Your task to perform on an android device: turn off sleep mode Image 0: 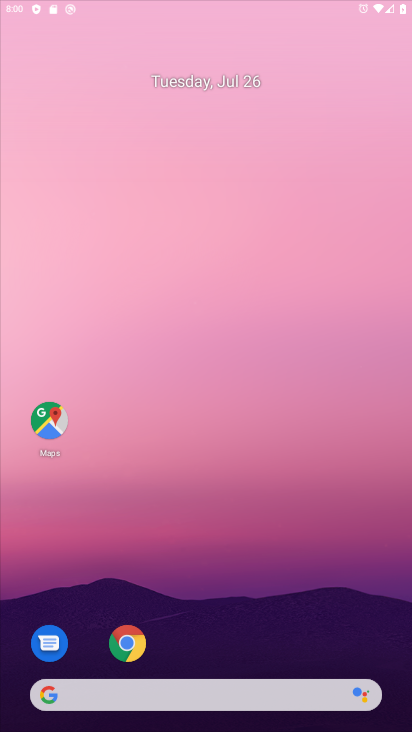
Step 0: drag from (204, 637) to (214, 281)
Your task to perform on an android device: turn off sleep mode Image 1: 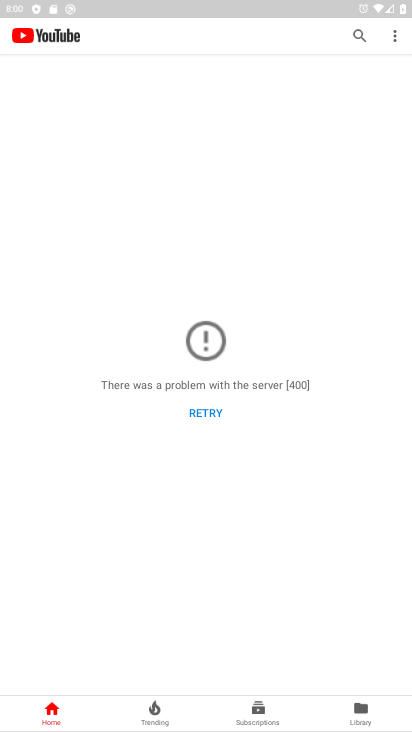
Step 1: press home button
Your task to perform on an android device: turn off sleep mode Image 2: 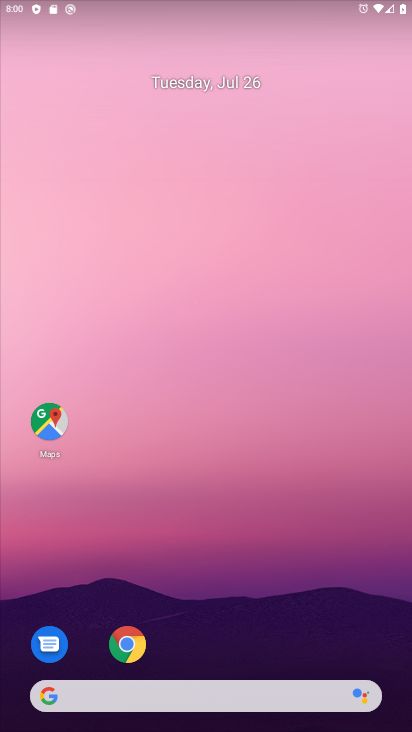
Step 2: drag from (234, 550) to (240, 188)
Your task to perform on an android device: turn off sleep mode Image 3: 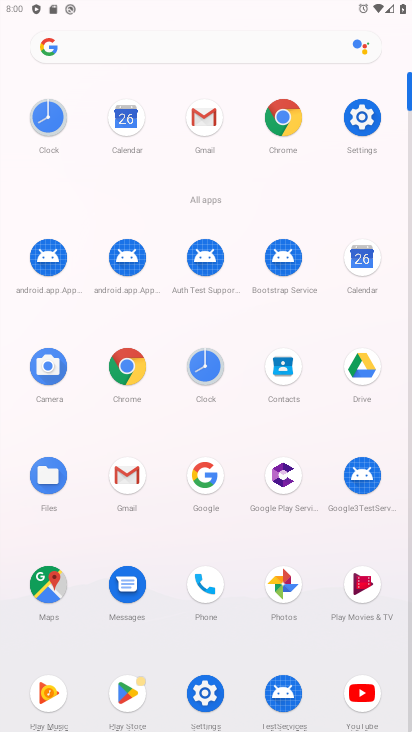
Step 3: click (362, 106)
Your task to perform on an android device: turn off sleep mode Image 4: 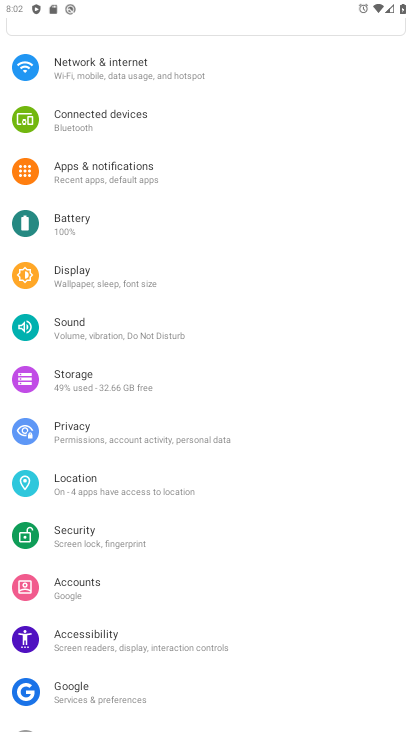
Step 4: task complete